Your task to perform on an android device: Clear the shopping cart on bestbuy. Image 0: 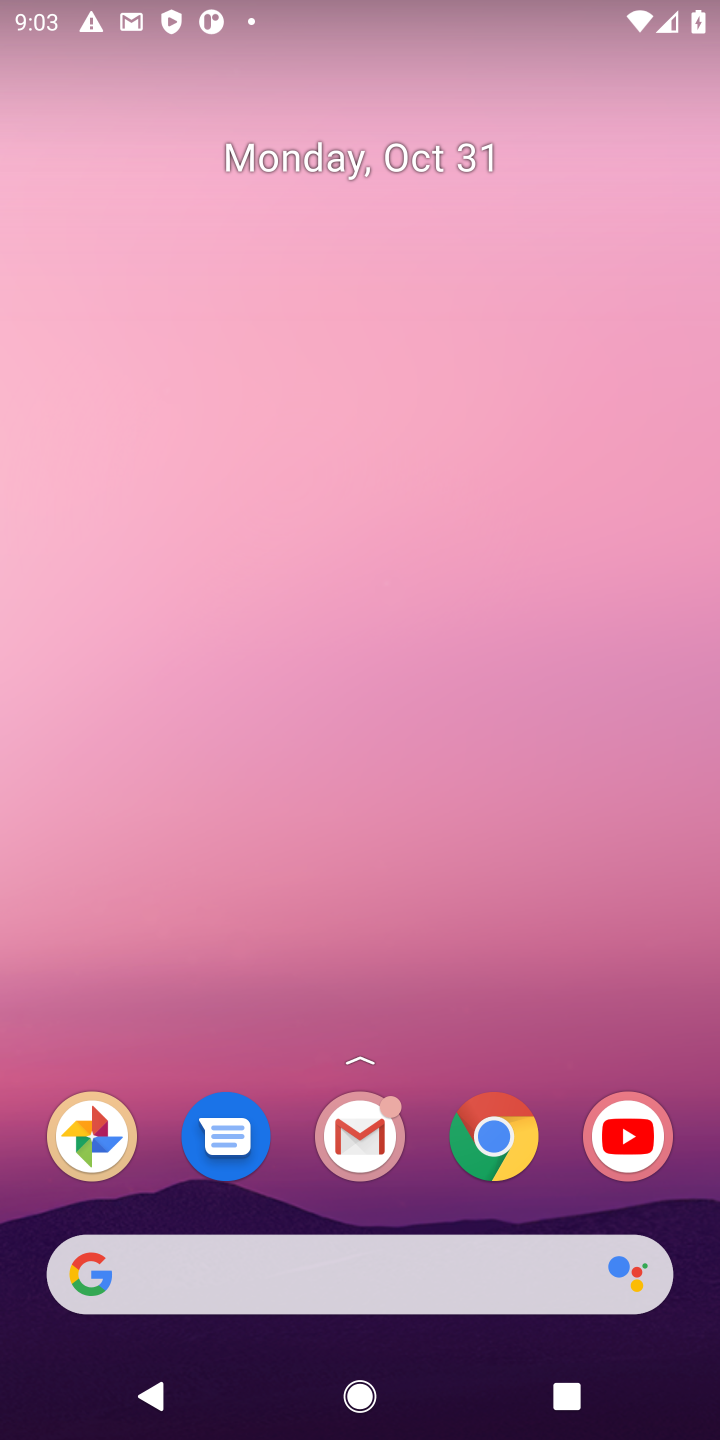
Step 0: click (518, 1145)
Your task to perform on an android device: Clear the shopping cart on bestbuy. Image 1: 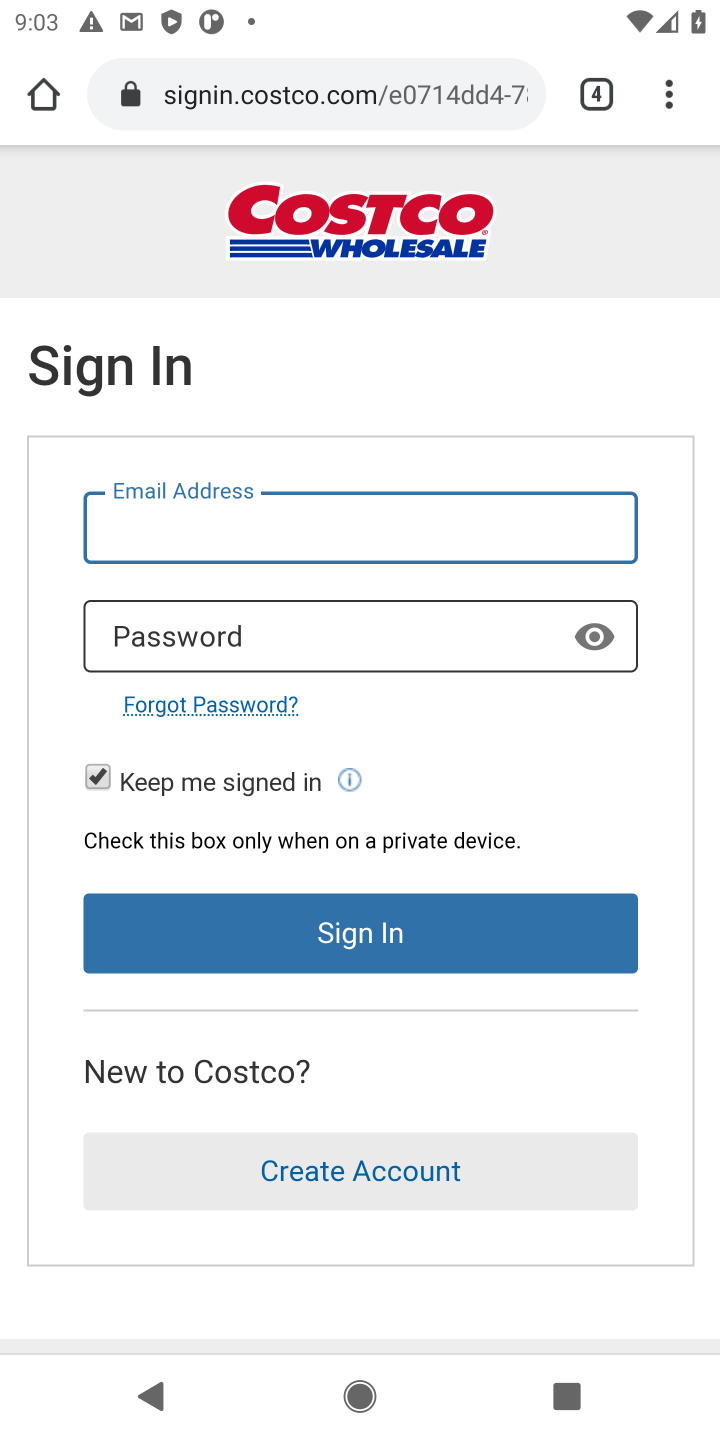
Step 1: task complete